Your task to perform on an android device: Open Google Image 0: 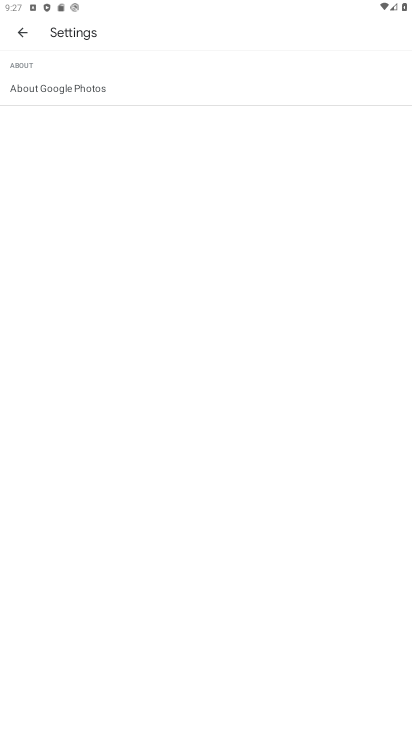
Step 0: press home button
Your task to perform on an android device: Open Google Image 1: 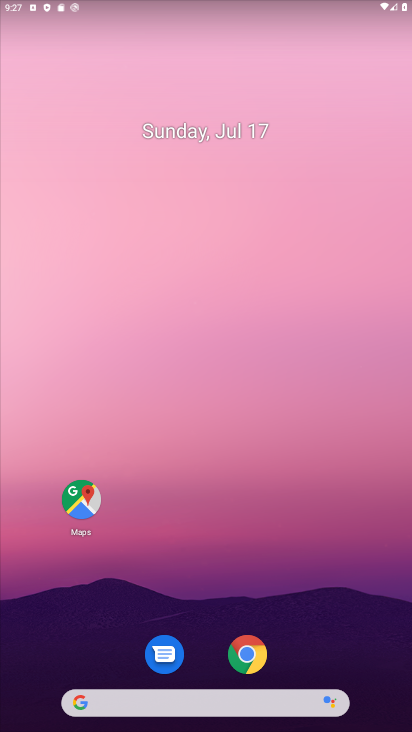
Step 1: drag from (192, 564) to (213, 15)
Your task to perform on an android device: Open Google Image 2: 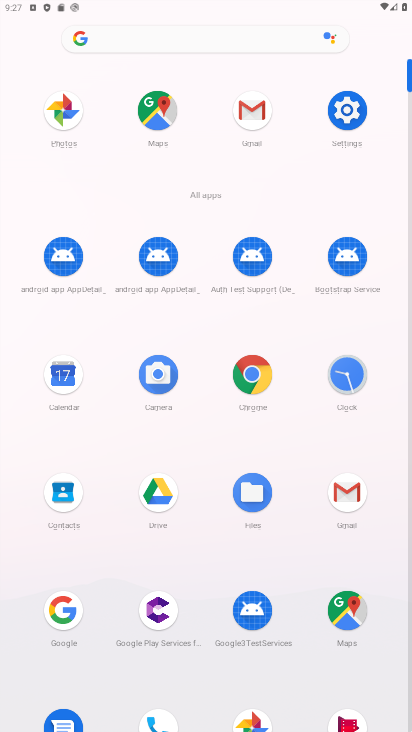
Step 2: click (67, 604)
Your task to perform on an android device: Open Google Image 3: 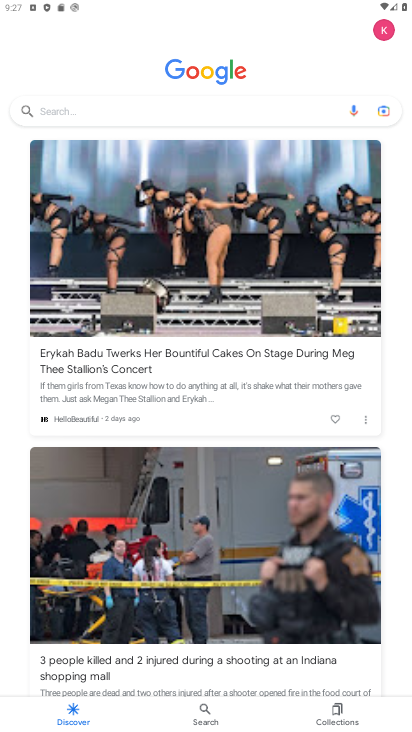
Step 3: task complete